Your task to perform on an android device: Open network settings Image 0: 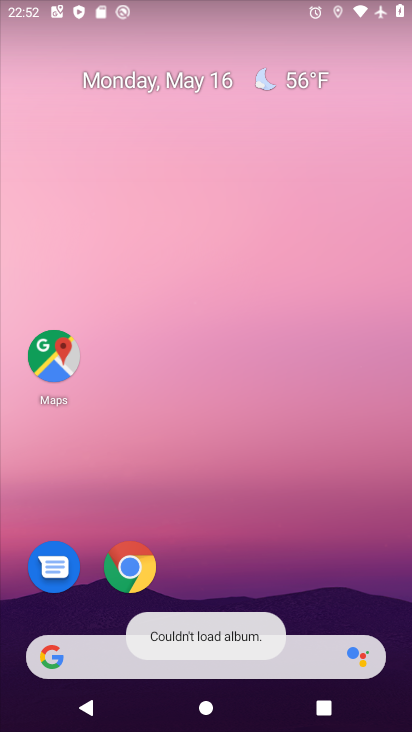
Step 0: drag from (304, 586) to (303, 173)
Your task to perform on an android device: Open network settings Image 1: 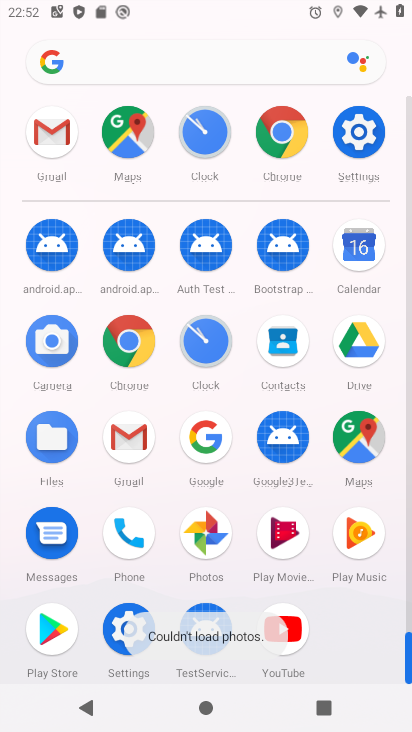
Step 1: click (356, 127)
Your task to perform on an android device: Open network settings Image 2: 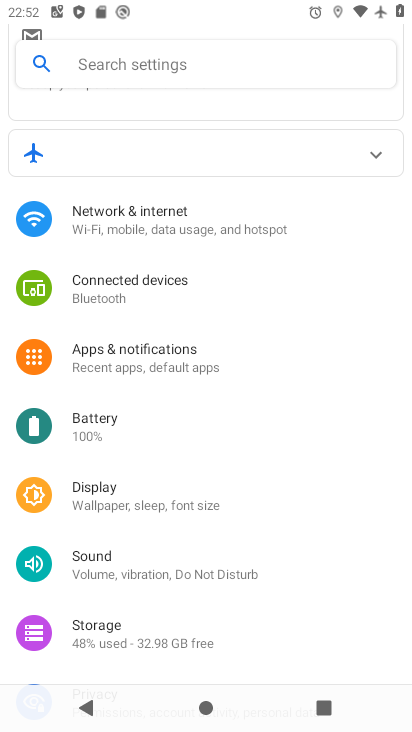
Step 2: click (210, 216)
Your task to perform on an android device: Open network settings Image 3: 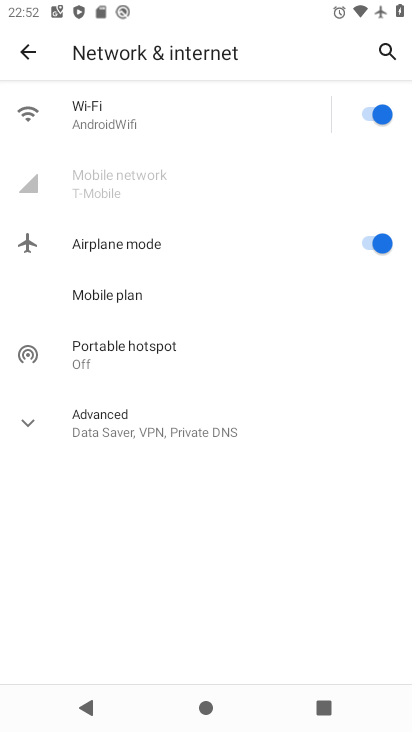
Step 3: task complete